Your task to perform on an android device: Open maps Image 0: 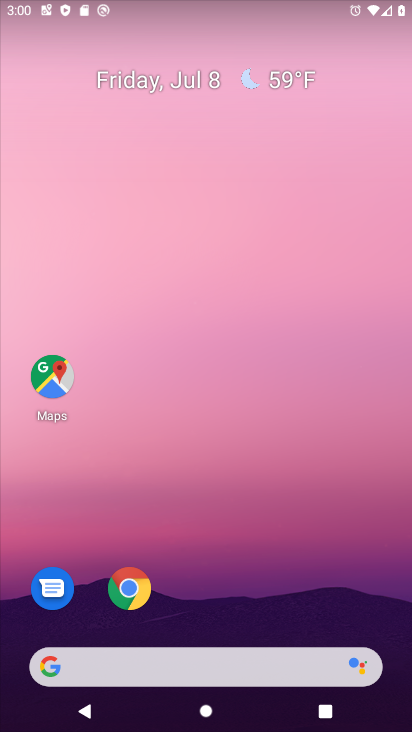
Step 0: drag from (233, 641) to (287, 191)
Your task to perform on an android device: Open maps Image 1: 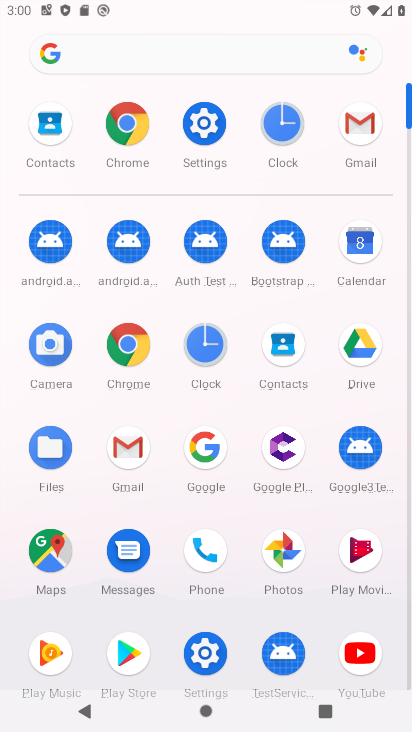
Step 1: click (65, 557)
Your task to perform on an android device: Open maps Image 2: 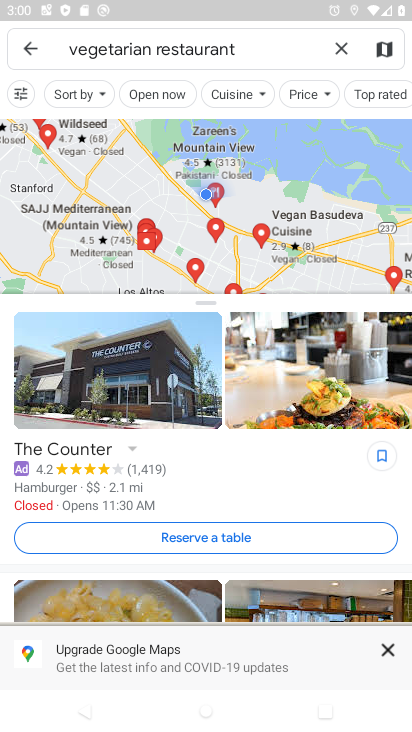
Step 2: task complete